Your task to perform on an android device: check google app version Image 0: 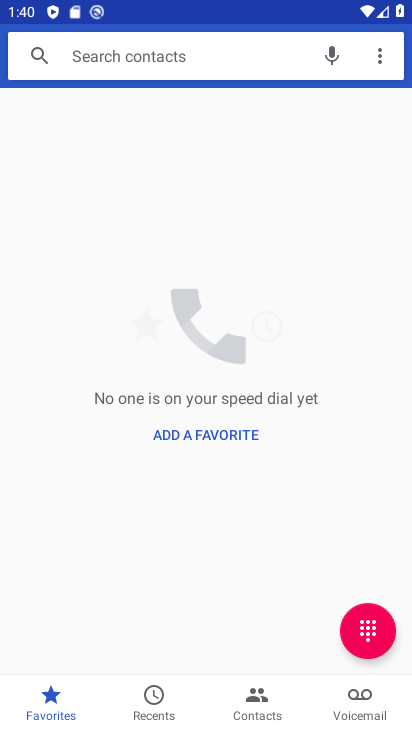
Step 0: press home button
Your task to perform on an android device: check google app version Image 1: 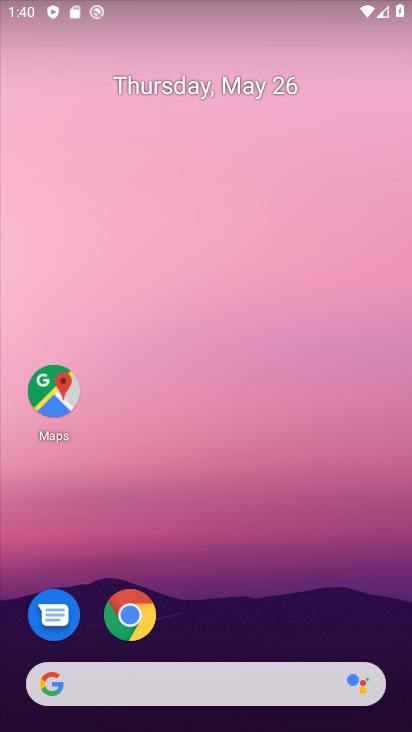
Step 1: drag from (224, 556) to (269, 89)
Your task to perform on an android device: check google app version Image 2: 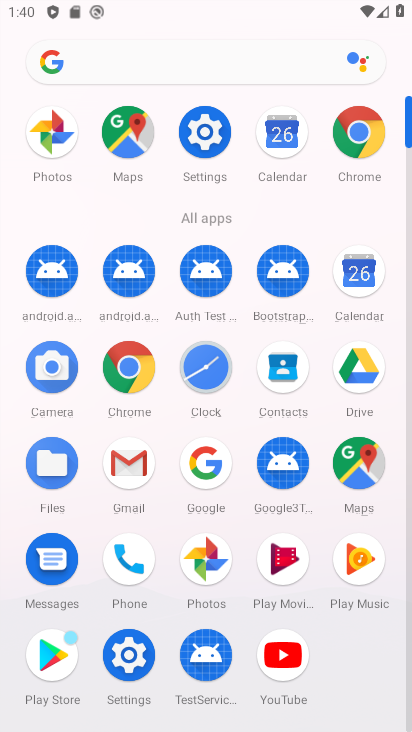
Step 2: click (206, 460)
Your task to perform on an android device: check google app version Image 3: 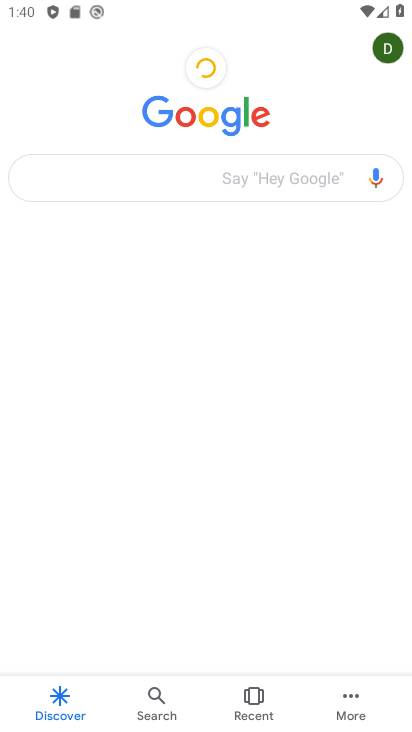
Step 3: click (351, 700)
Your task to perform on an android device: check google app version Image 4: 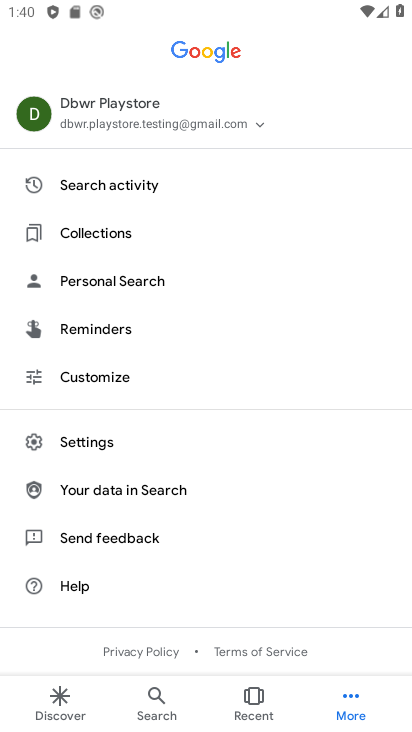
Step 4: click (131, 438)
Your task to perform on an android device: check google app version Image 5: 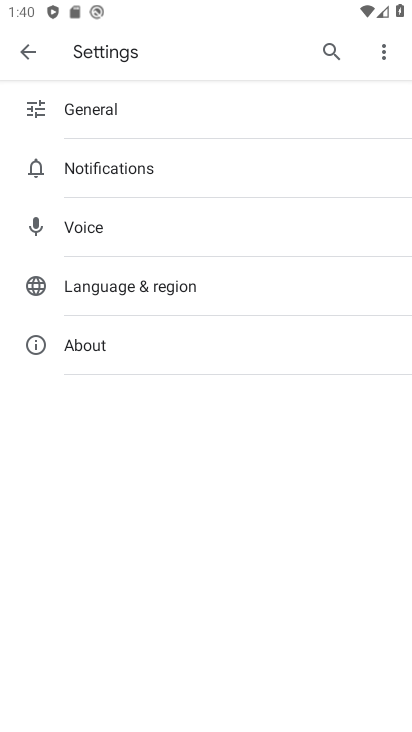
Step 5: click (119, 353)
Your task to perform on an android device: check google app version Image 6: 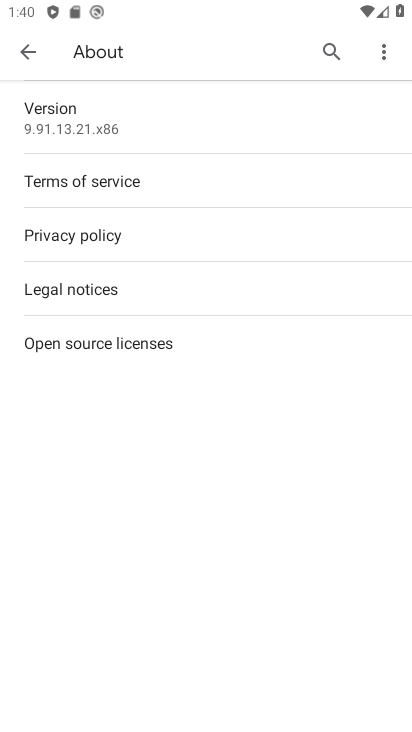
Step 6: task complete